Your task to perform on an android device: Open the web browser Image 0: 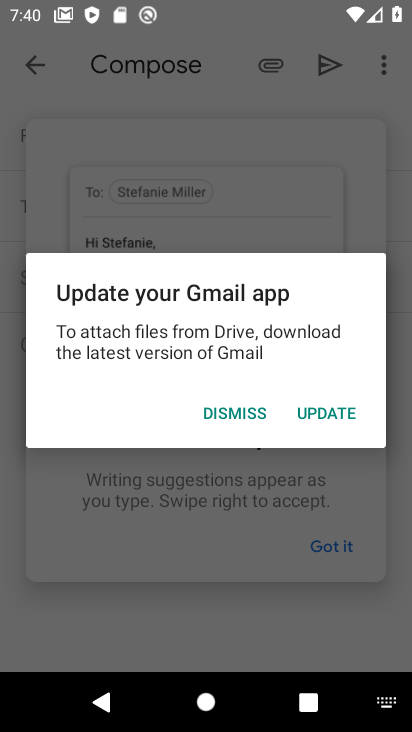
Step 0: press home button
Your task to perform on an android device: Open the web browser Image 1: 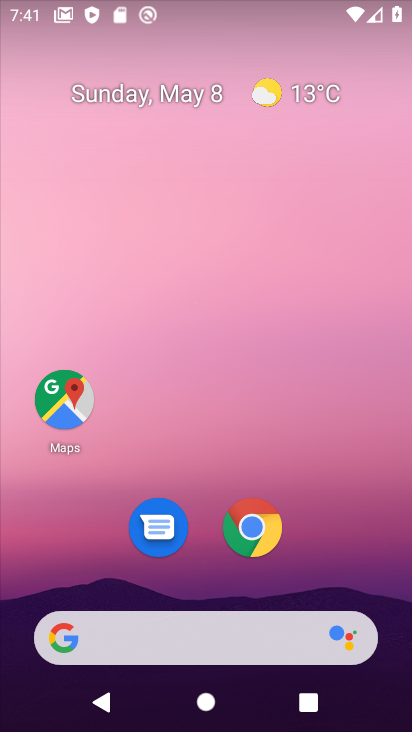
Step 1: click (236, 517)
Your task to perform on an android device: Open the web browser Image 2: 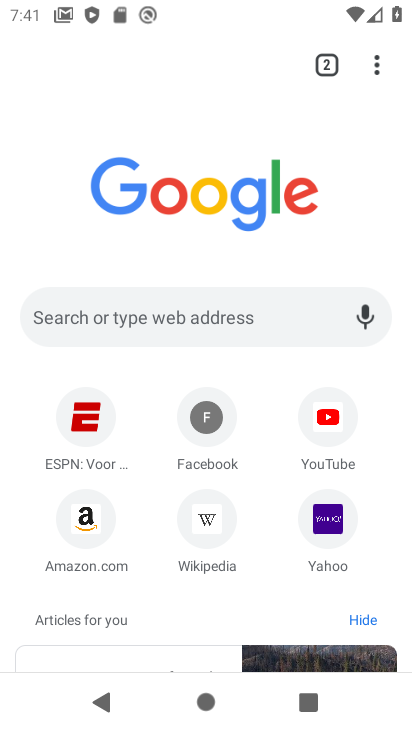
Step 2: task complete